Your task to perform on an android device: change notifications settings Image 0: 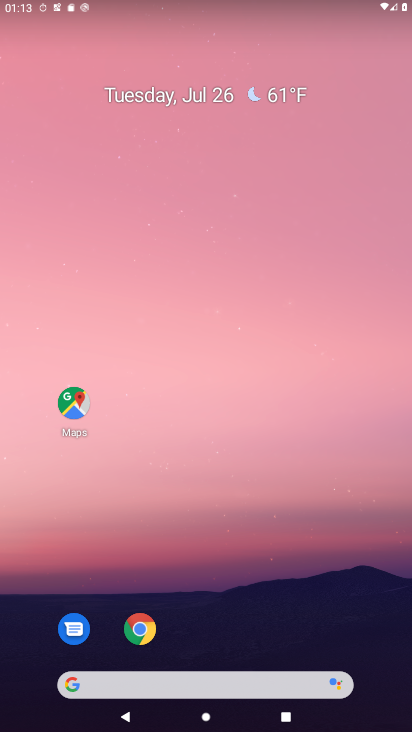
Step 0: drag from (218, 620) to (219, 225)
Your task to perform on an android device: change notifications settings Image 1: 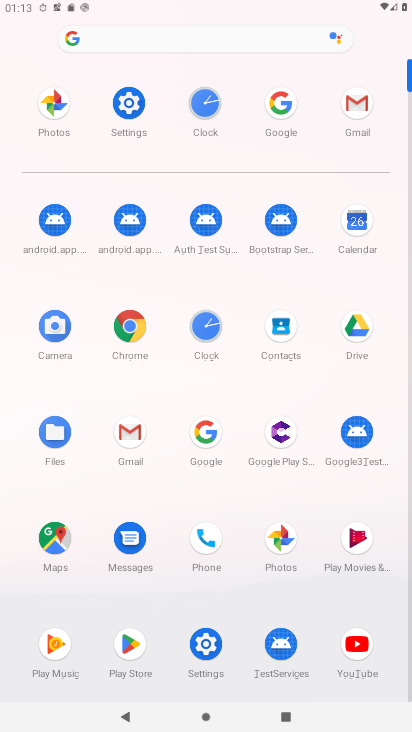
Step 1: click (126, 96)
Your task to perform on an android device: change notifications settings Image 2: 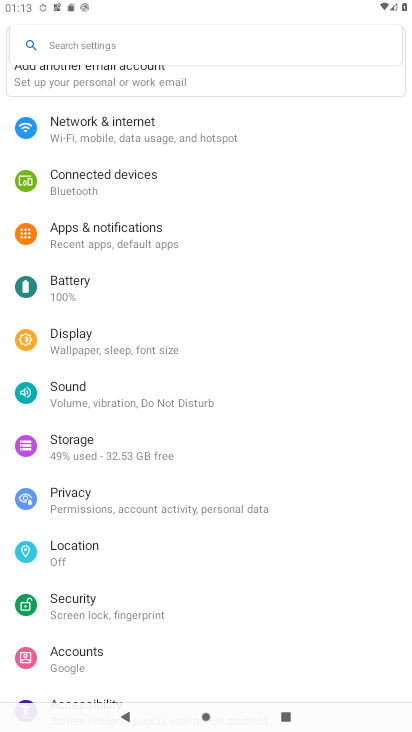
Step 2: click (164, 233)
Your task to perform on an android device: change notifications settings Image 3: 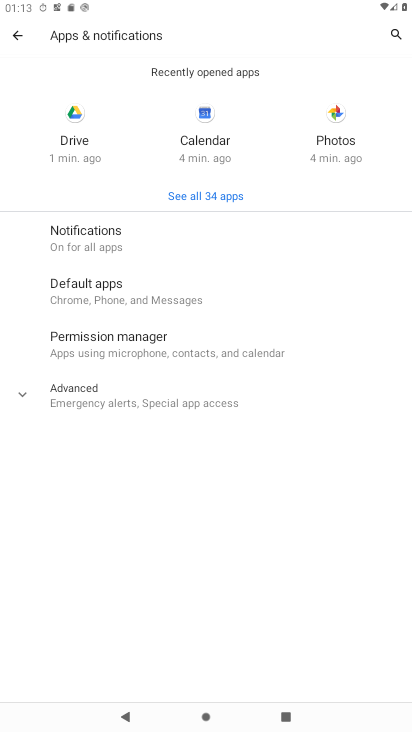
Step 3: click (164, 233)
Your task to perform on an android device: change notifications settings Image 4: 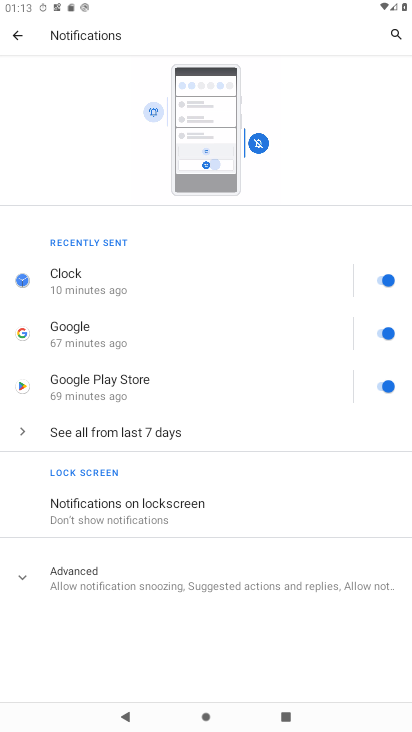
Step 4: click (165, 521)
Your task to perform on an android device: change notifications settings Image 5: 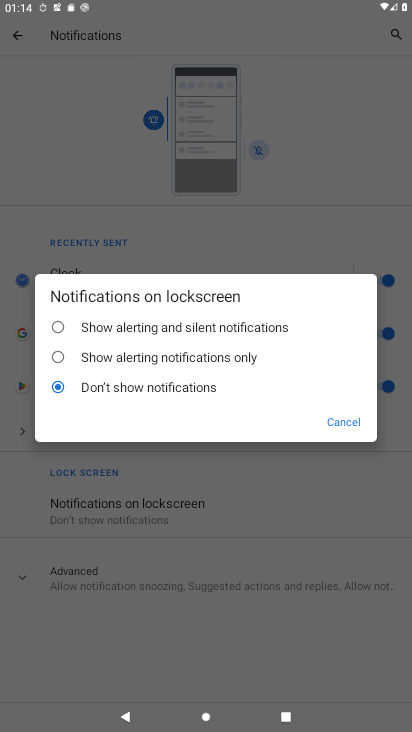
Step 5: click (133, 319)
Your task to perform on an android device: change notifications settings Image 6: 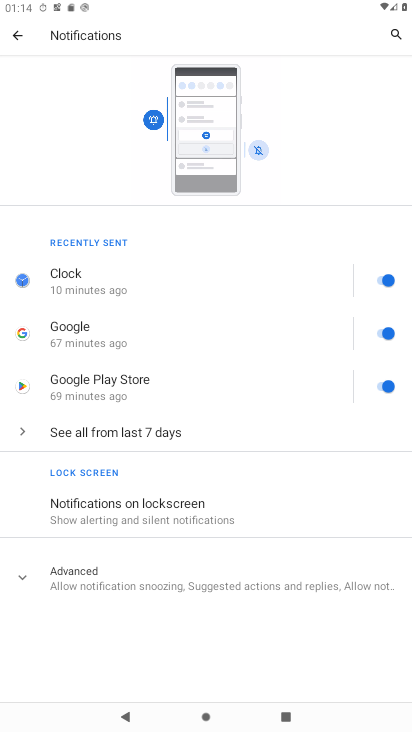
Step 6: task complete